Your task to perform on an android device: open chrome and create a bookmark for the current page Image 0: 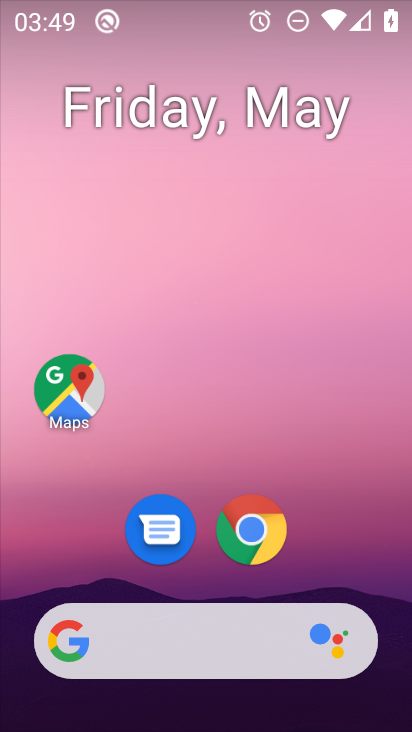
Step 0: click (268, 533)
Your task to perform on an android device: open chrome and create a bookmark for the current page Image 1: 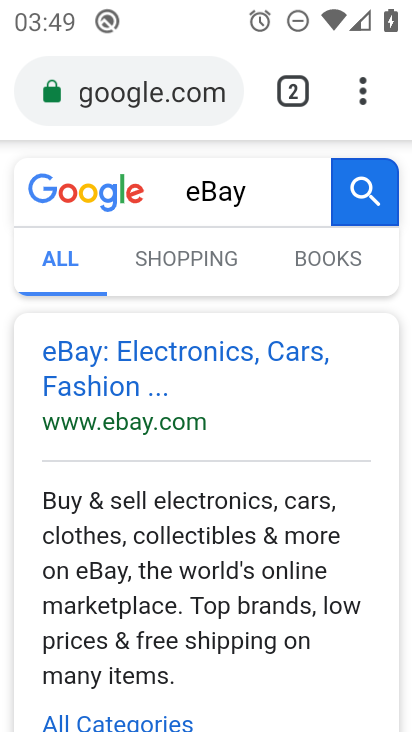
Step 1: click (365, 87)
Your task to perform on an android device: open chrome and create a bookmark for the current page Image 2: 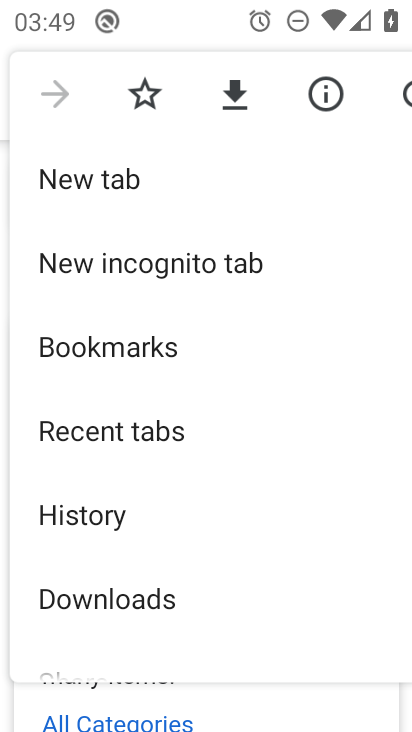
Step 2: click (102, 341)
Your task to perform on an android device: open chrome and create a bookmark for the current page Image 3: 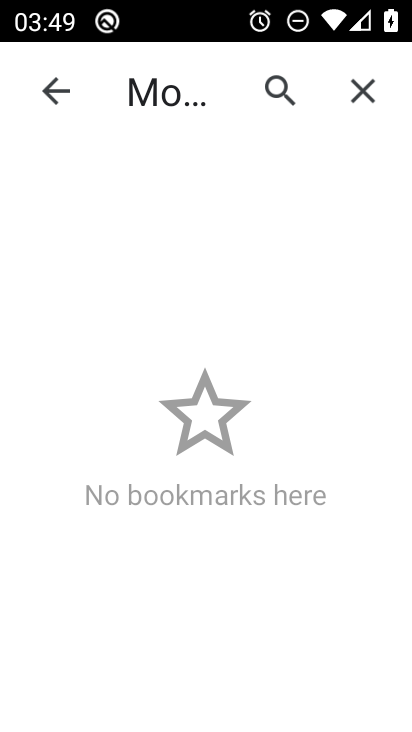
Step 3: press back button
Your task to perform on an android device: open chrome and create a bookmark for the current page Image 4: 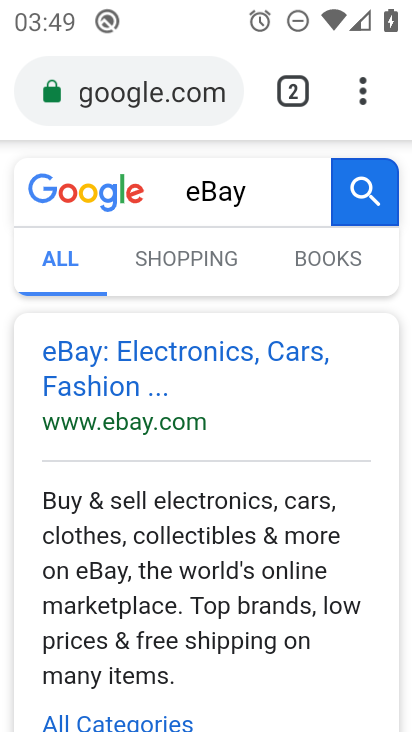
Step 4: click (364, 82)
Your task to perform on an android device: open chrome and create a bookmark for the current page Image 5: 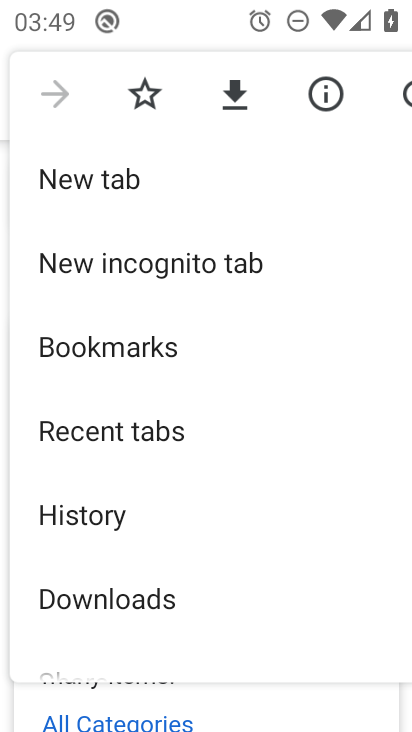
Step 5: click (142, 91)
Your task to perform on an android device: open chrome and create a bookmark for the current page Image 6: 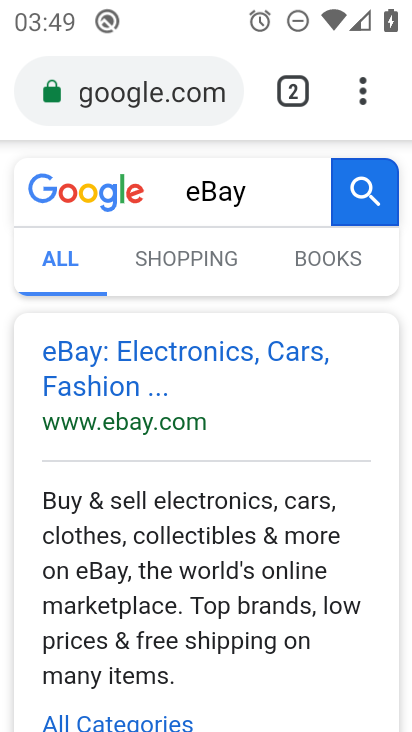
Step 6: task complete